Your task to perform on an android device: install app "Google Photos" Image 0: 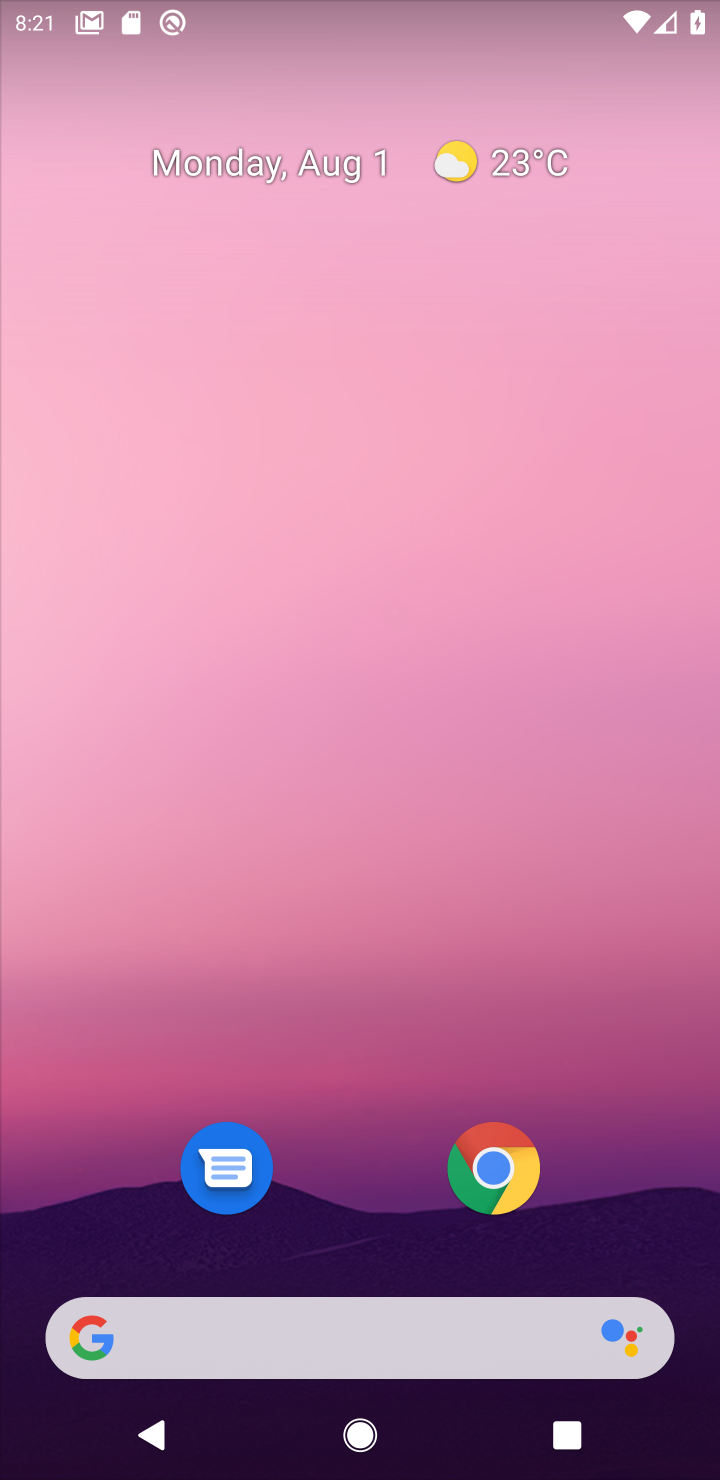
Step 0: drag from (285, 366) to (381, 37)
Your task to perform on an android device: install app "Google Photos" Image 1: 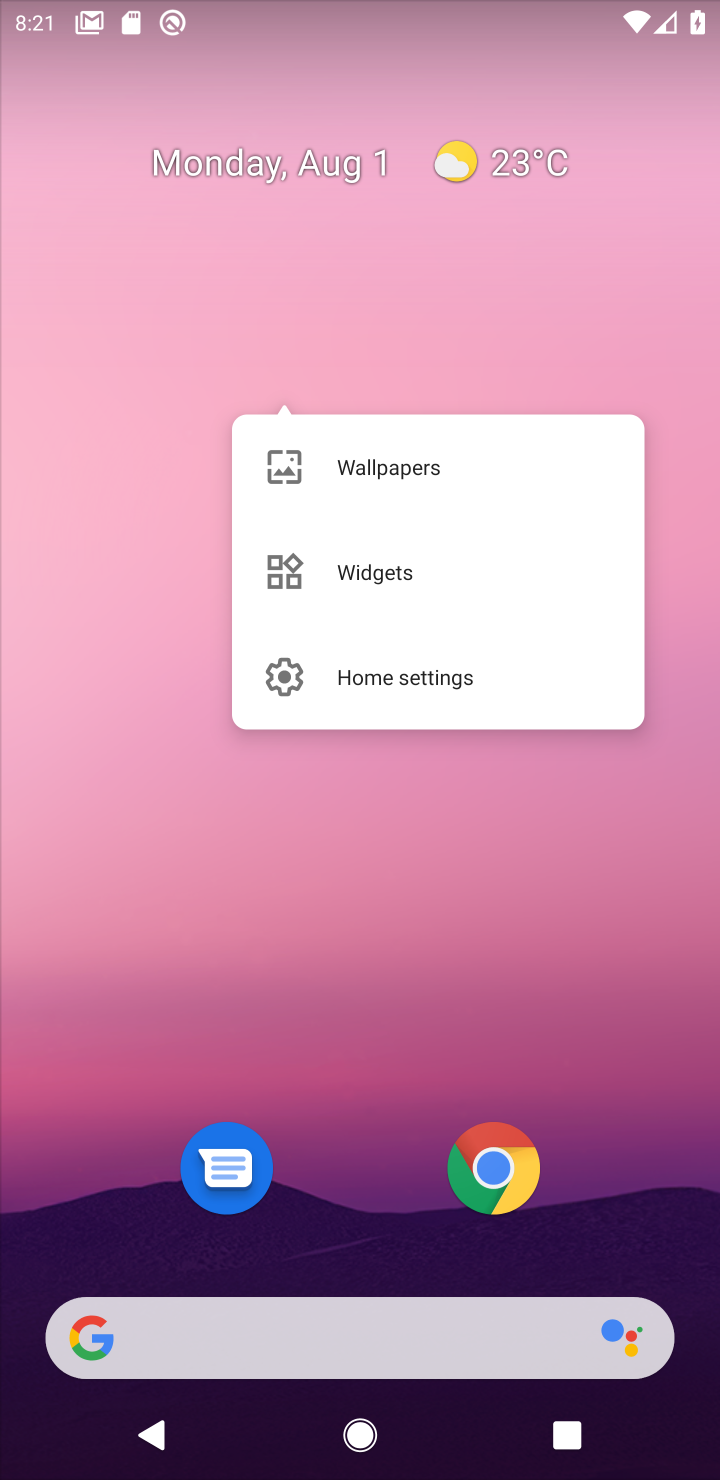
Step 1: click (348, 1001)
Your task to perform on an android device: install app "Google Photos" Image 2: 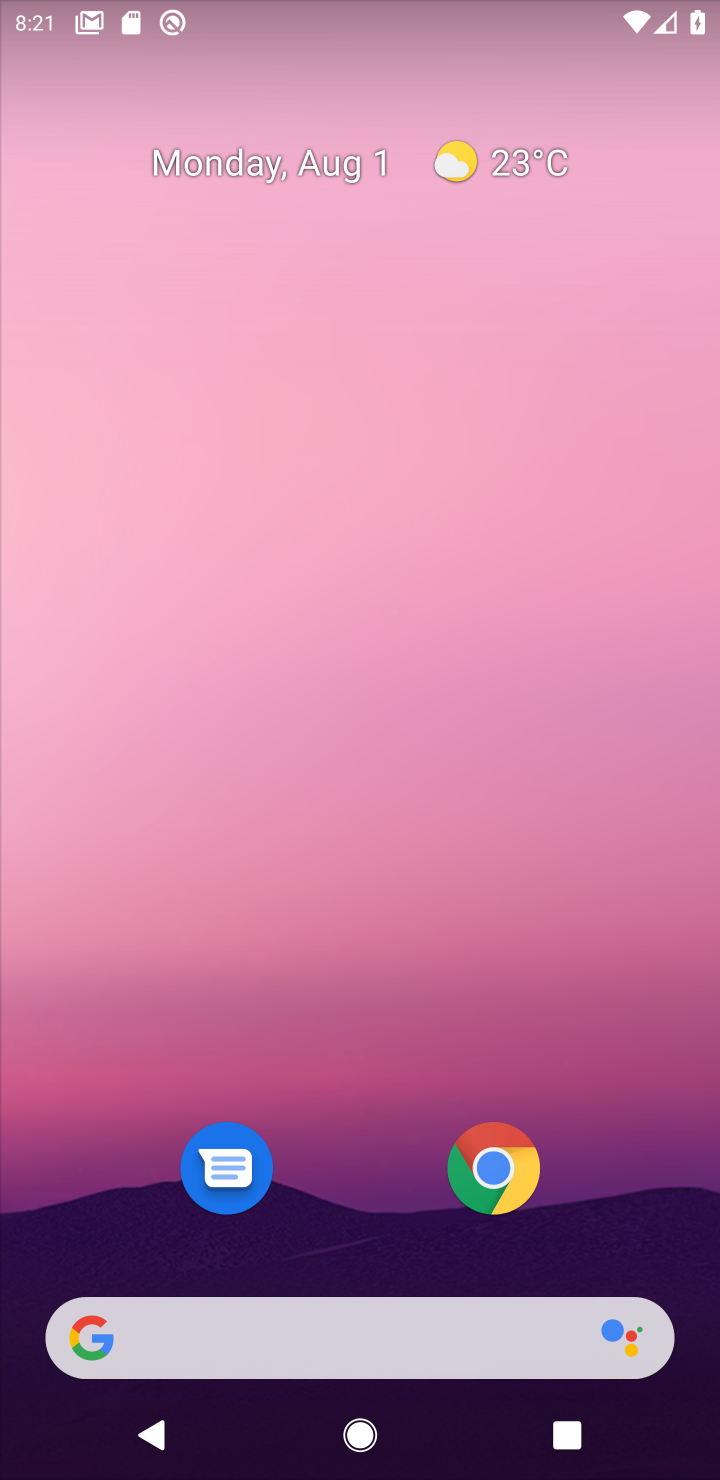
Step 2: drag from (346, 1118) to (428, 10)
Your task to perform on an android device: install app "Google Photos" Image 3: 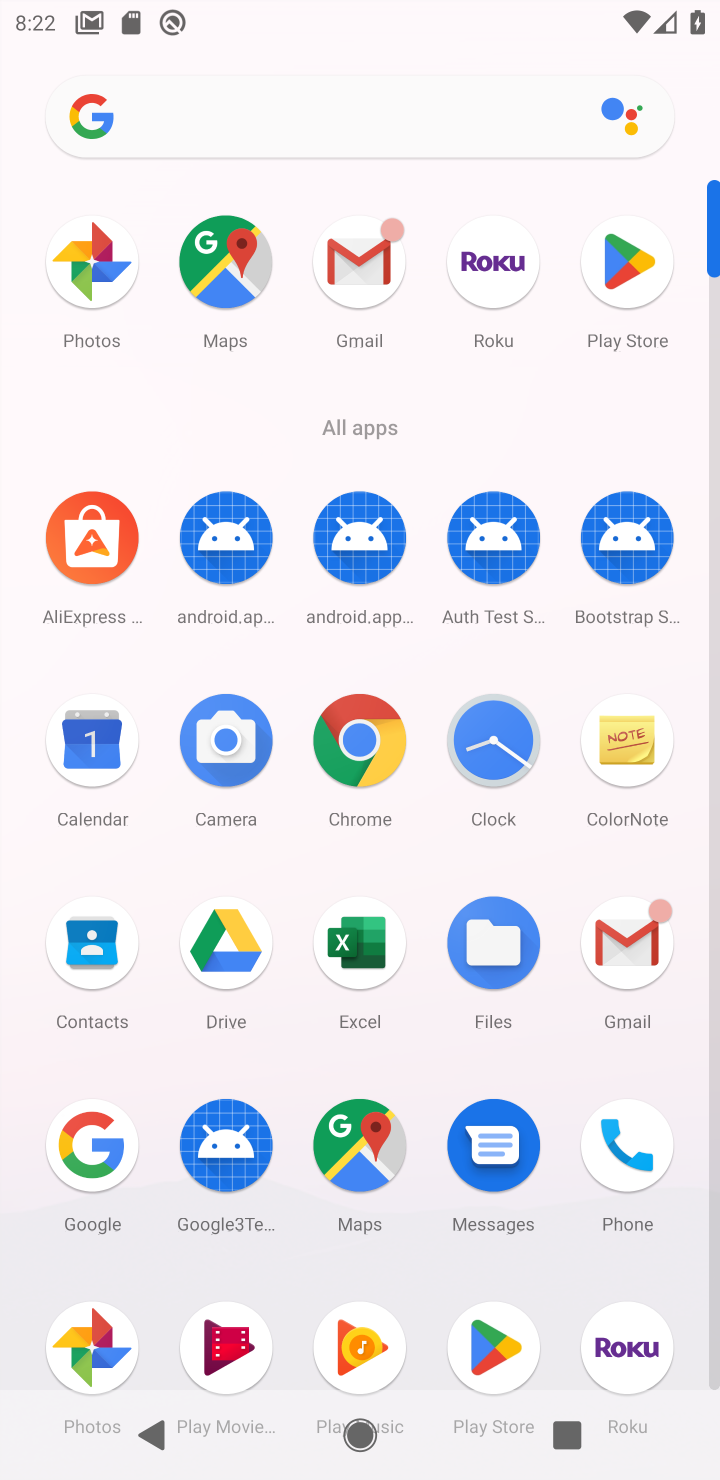
Step 3: click (481, 1354)
Your task to perform on an android device: install app "Google Photos" Image 4: 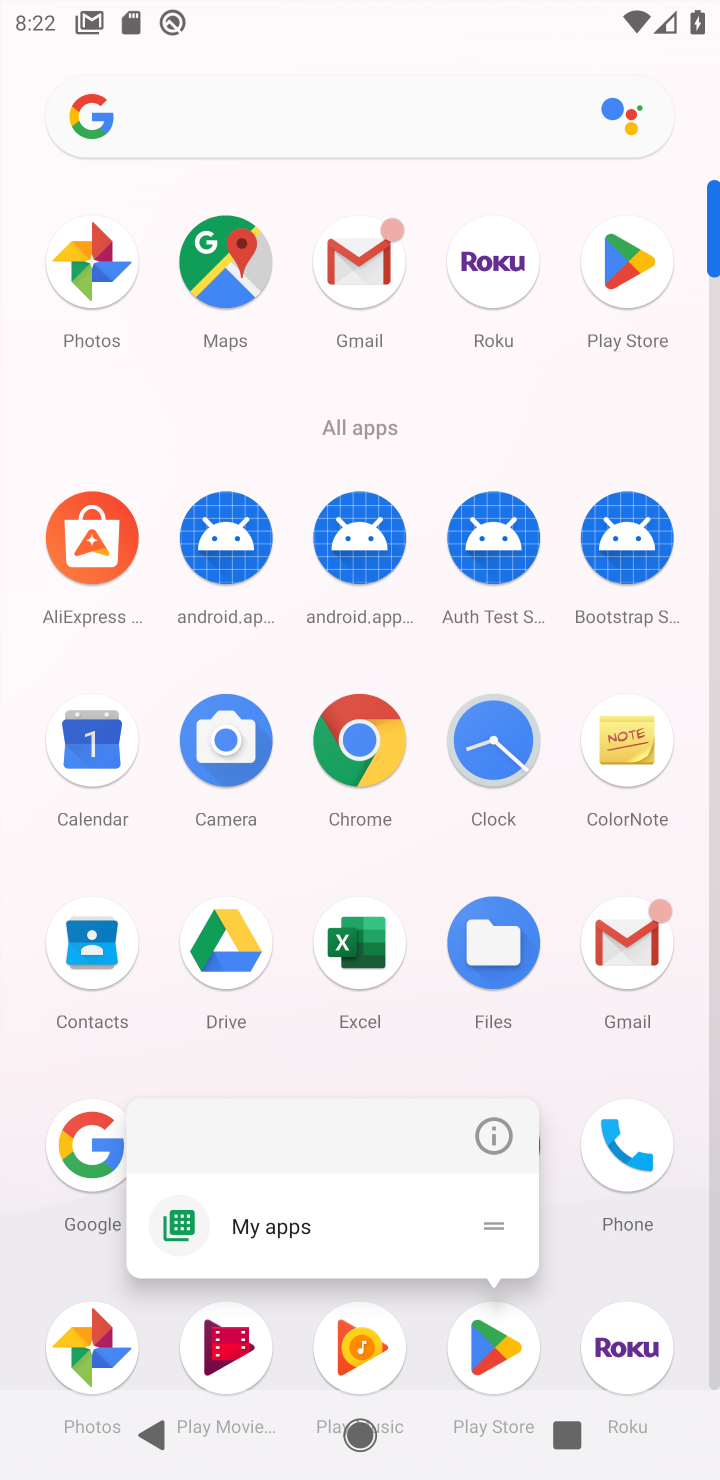
Step 4: click (482, 1367)
Your task to perform on an android device: install app "Google Photos" Image 5: 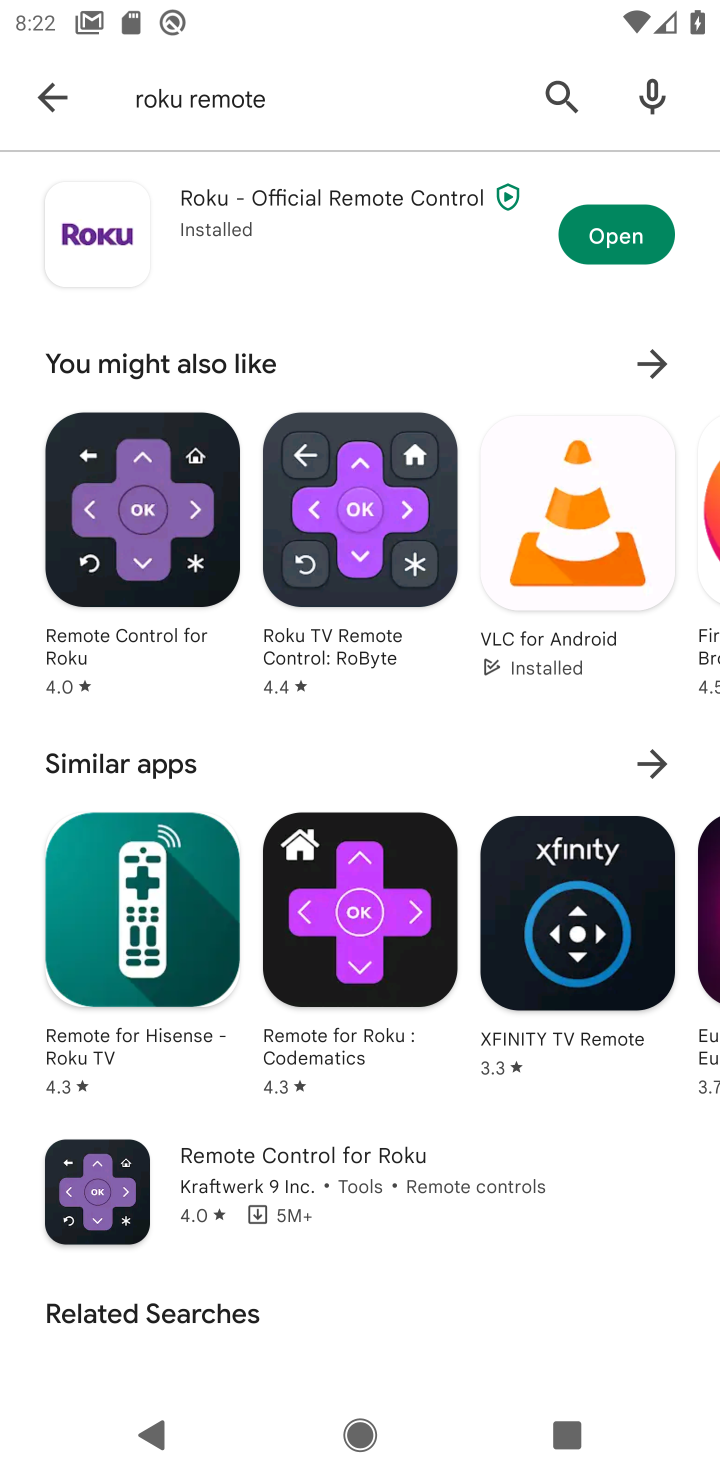
Step 5: click (267, 91)
Your task to perform on an android device: install app "Google Photos" Image 6: 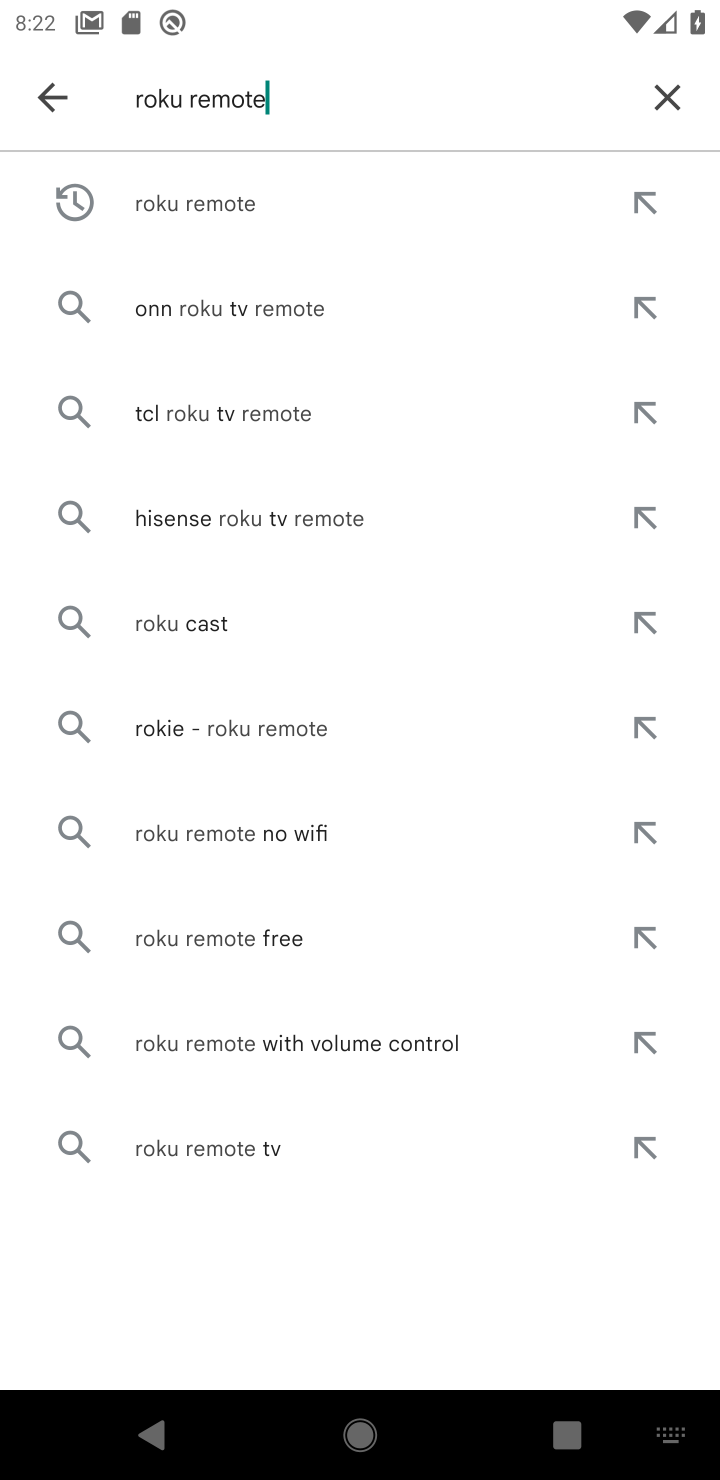
Step 6: click (671, 84)
Your task to perform on an android device: install app "Google Photos" Image 7: 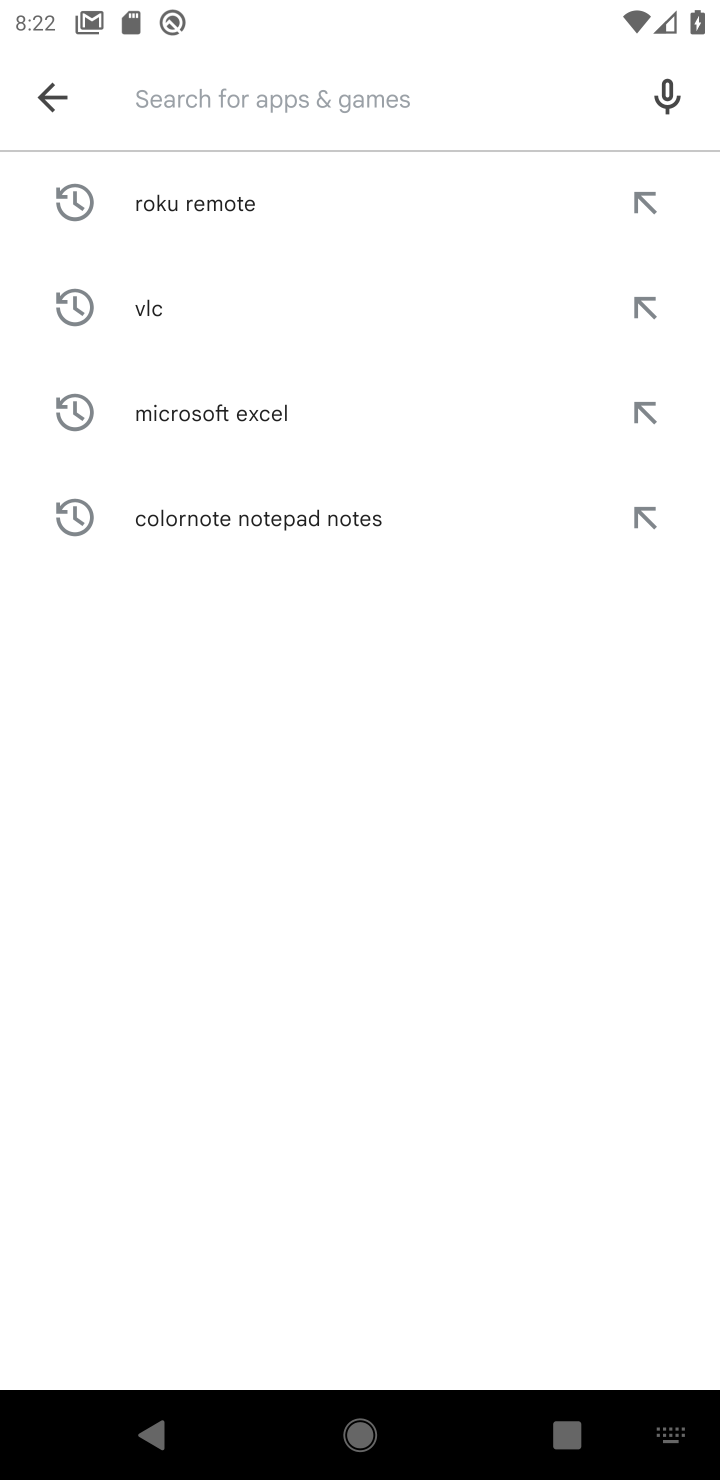
Step 7: type "Google Photos"
Your task to perform on an android device: install app "Google Photos" Image 8: 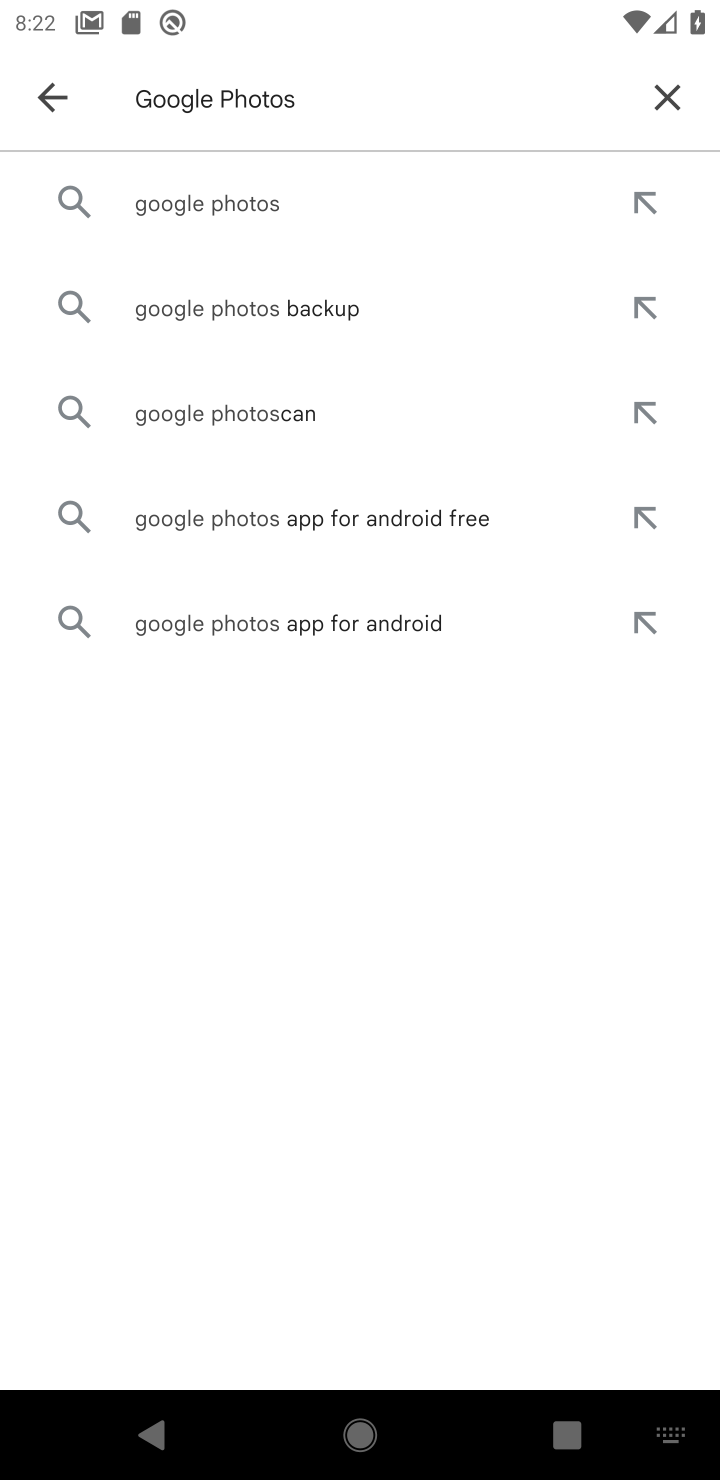
Step 8: click (161, 204)
Your task to perform on an android device: install app "Google Photos" Image 9: 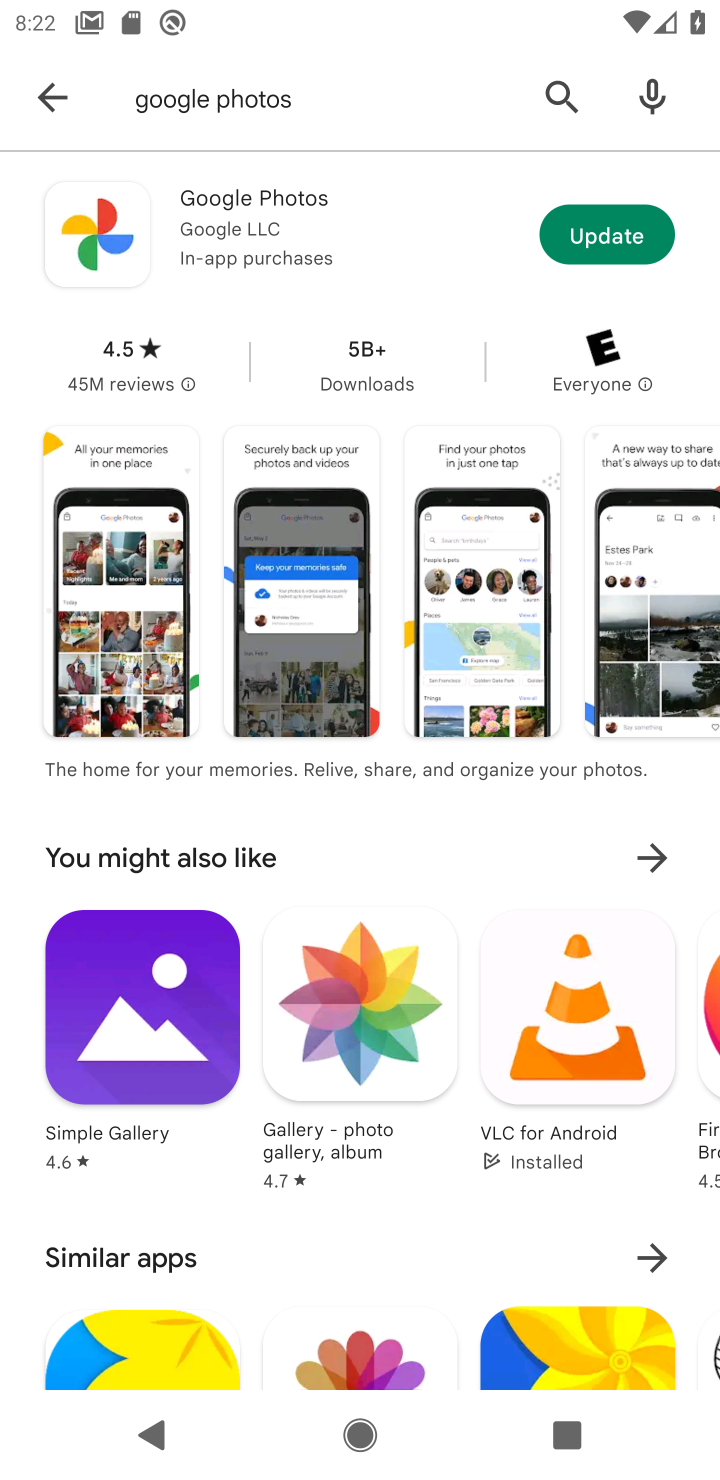
Step 9: click (642, 246)
Your task to perform on an android device: install app "Google Photos" Image 10: 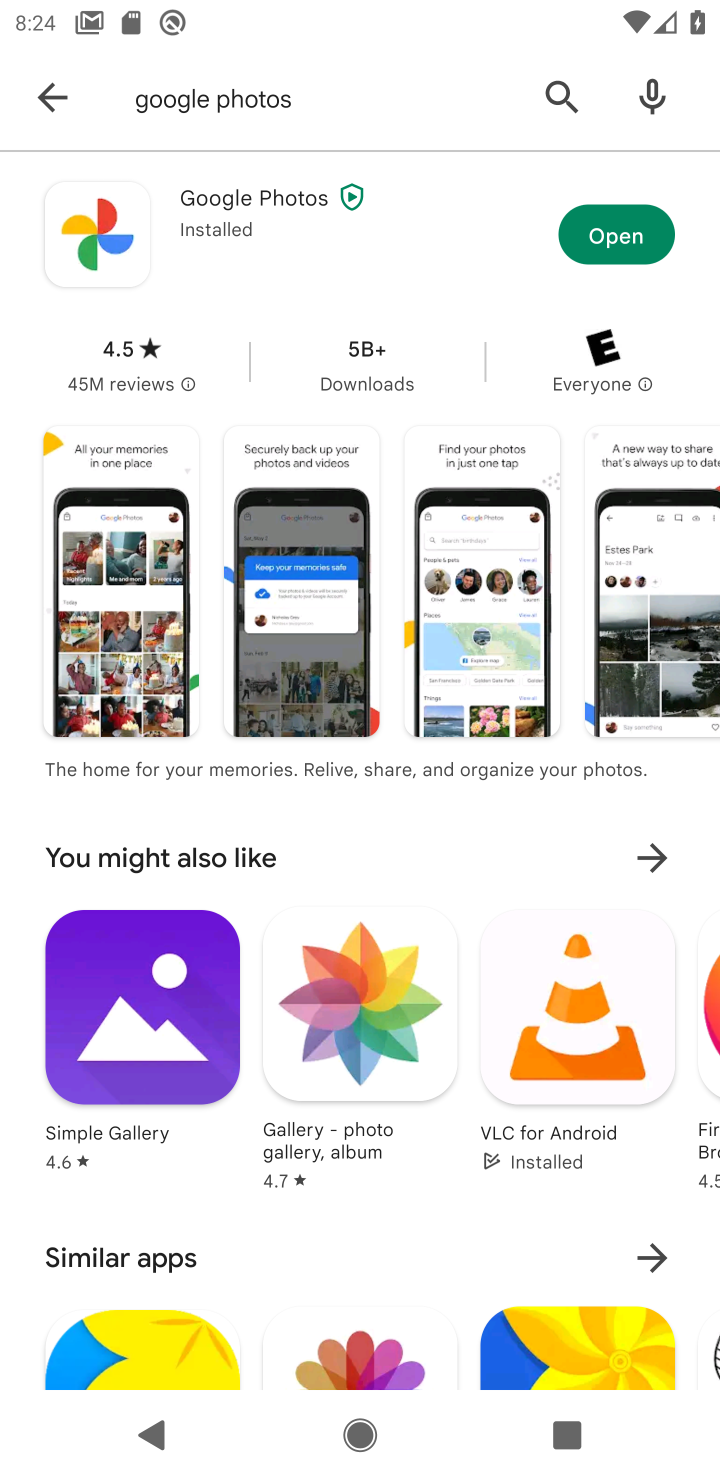
Step 10: task complete